Your task to perform on an android device: Do I have any events tomorrow? Image 0: 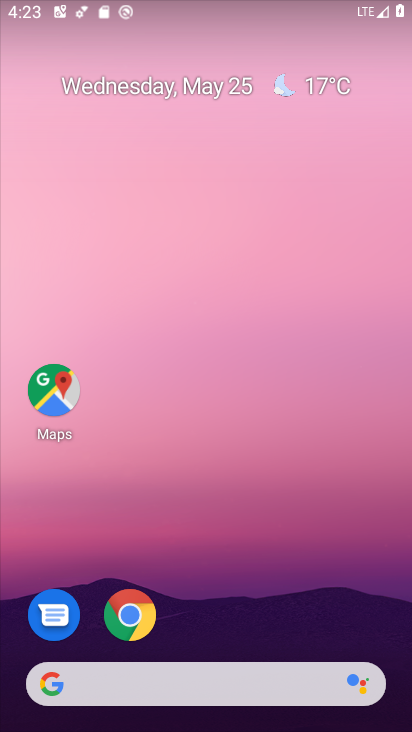
Step 0: press home button
Your task to perform on an android device: Do I have any events tomorrow? Image 1: 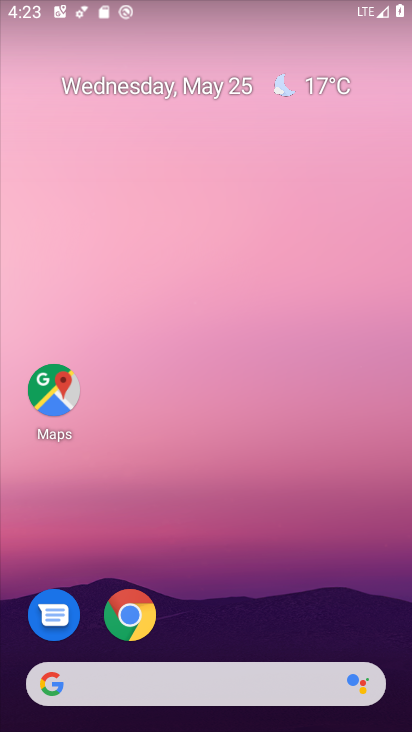
Step 1: drag from (232, 318) to (162, 51)
Your task to perform on an android device: Do I have any events tomorrow? Image 2: 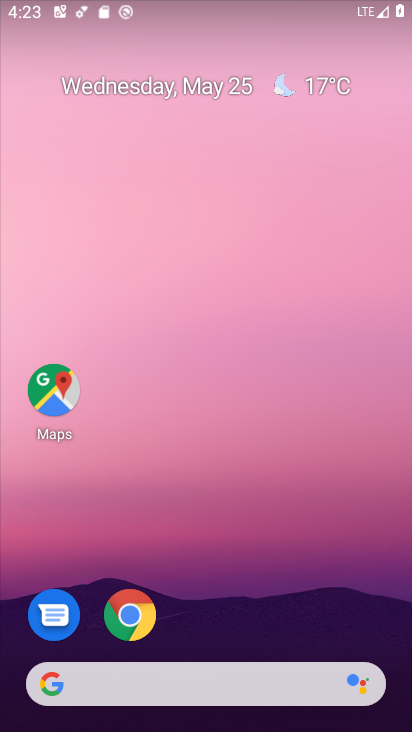
Step 2: drag from (269, 493) to (194, 73)
Your task to perform on an android device: Do I have any events tomorrow? Image 3: 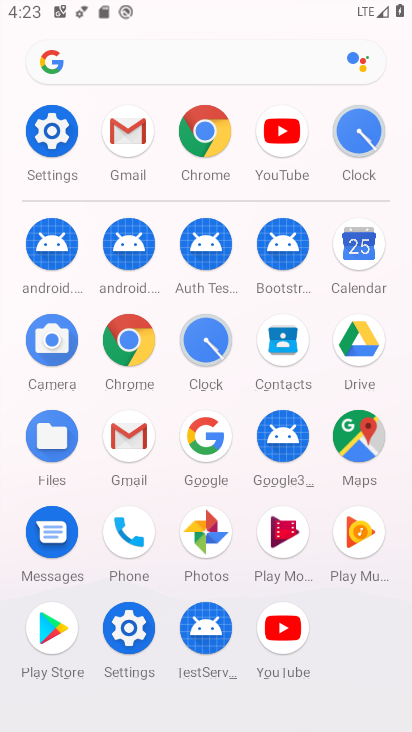
Step 3: click (361, 249)
Your task to perform on an android device: Do I have any events tomorrow? Image 4: 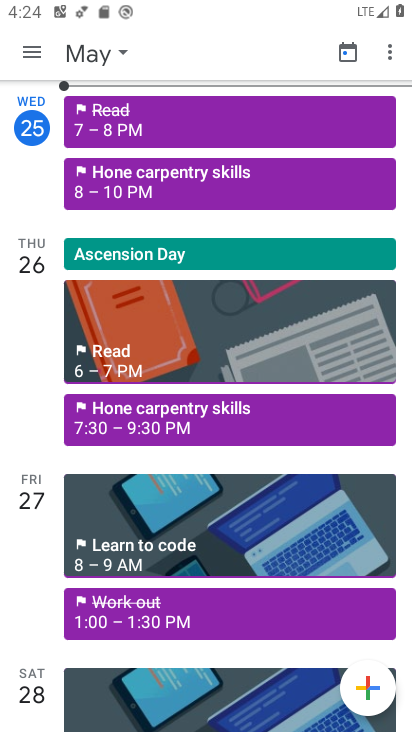
Step 4: task complete